Your task to perform on an android device: install app "Indeed Job Search" Image 0: 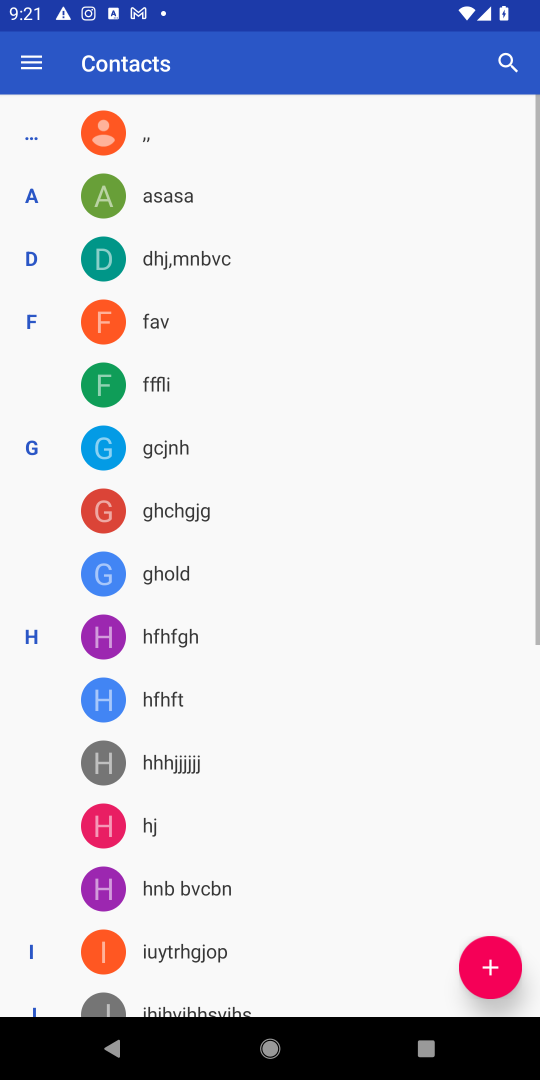
Step 0: press home button
Your task to perform on an android device: install app "Indeed Job Search" Image 1: 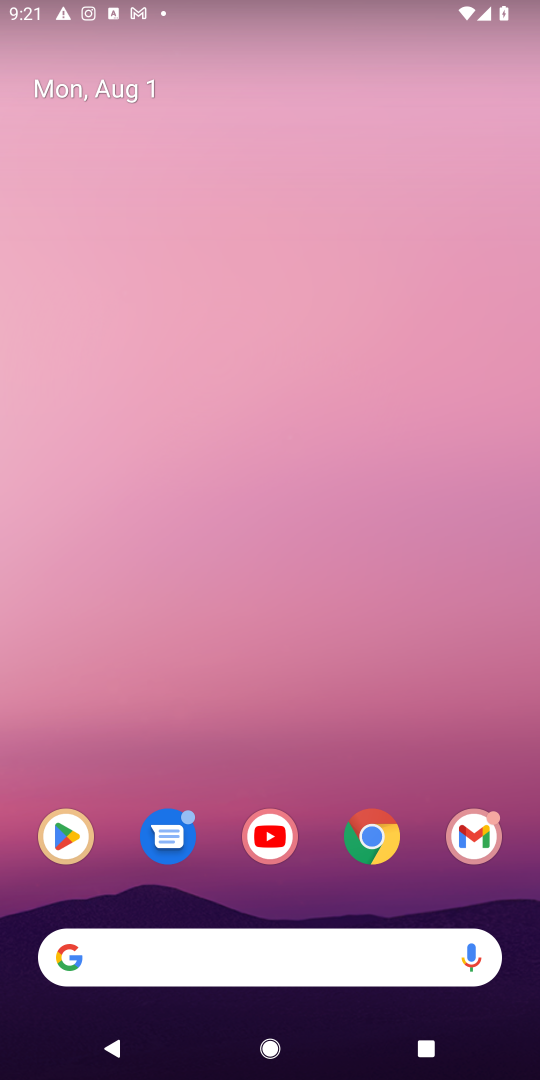
Step 1: click (58, 841)
Your task to perform on an android device: install app "Indeed Job Search" Image 2: 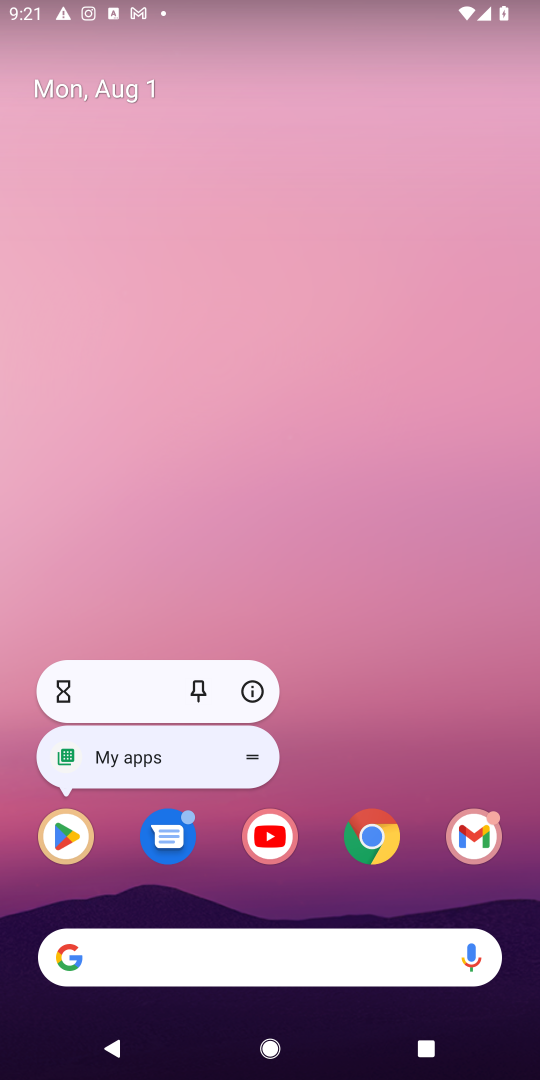
Step 2: click (58, 841)
Your task to perform on an android device: install app "Indeed Job Search" Image 3: 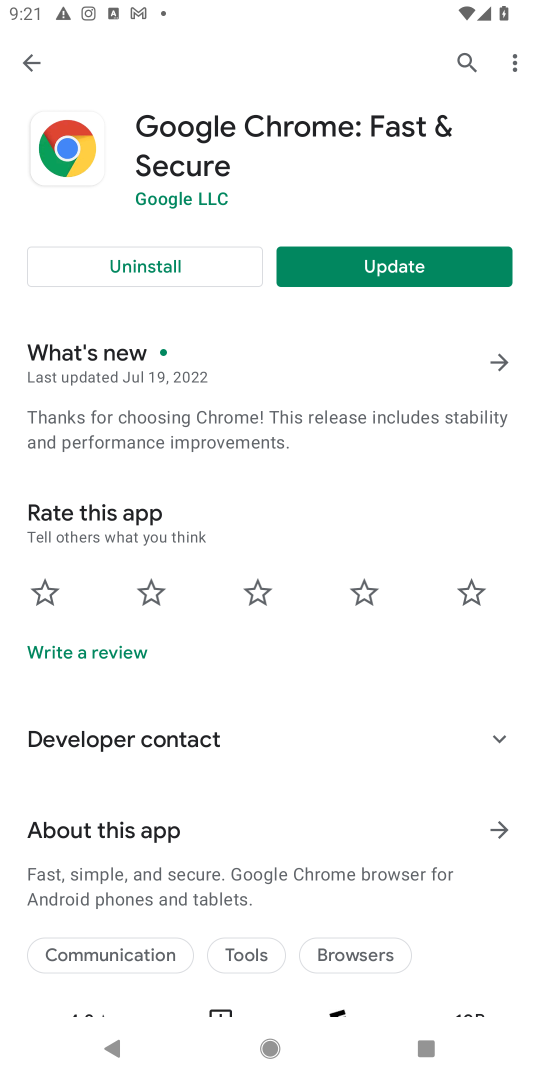
Step 3: click (464, 53)
Your task to perform on an android device: install app "Indeed Job Search" Image 4: 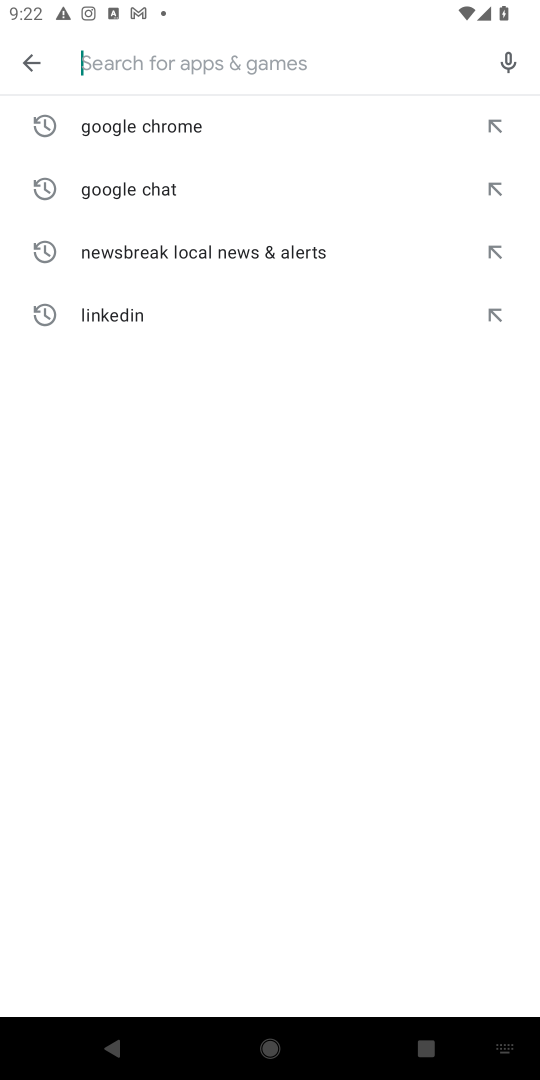
Step 4: type "Indeed Job Search"
Your task to perform on an android device: install app "Indeed Job Search" Image 5: 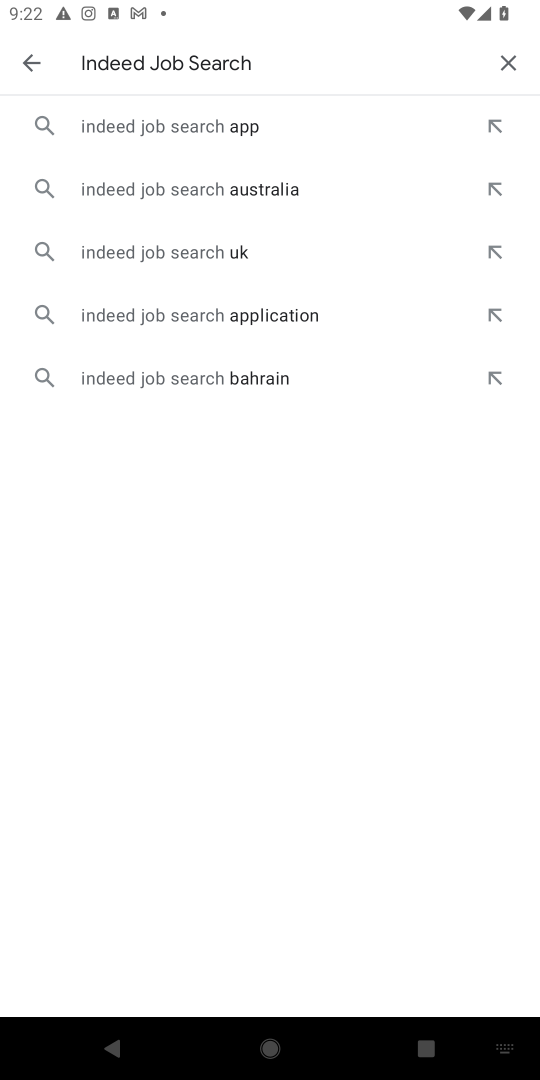
Step 5: click (215, 123)
Your task to perform on an android device: install app "Indeed Job Search" Image 6: 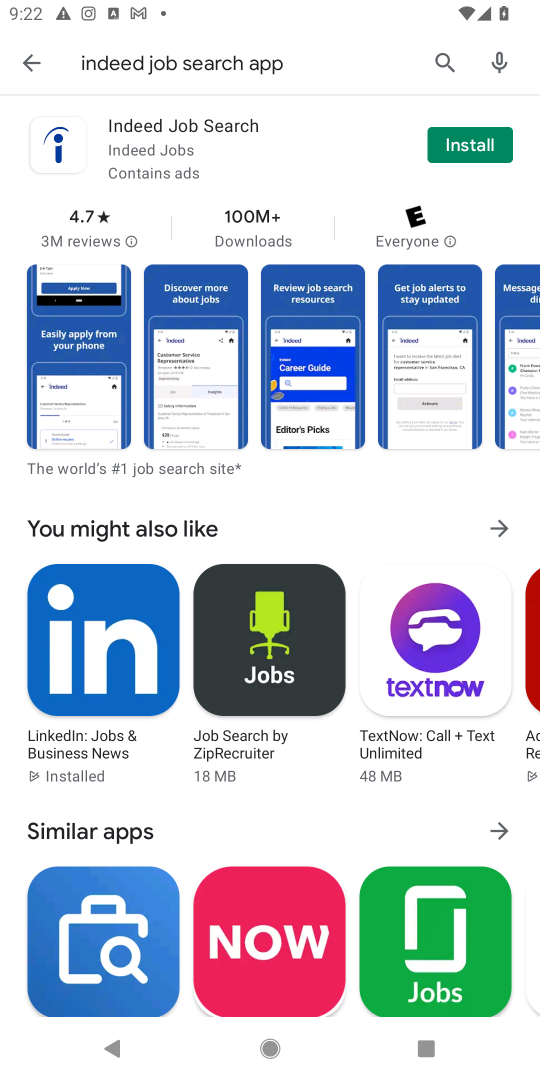
Step 6: click (479, 140)
Your task to perform on an android device: install app "Indeed Job Search" Image 7: 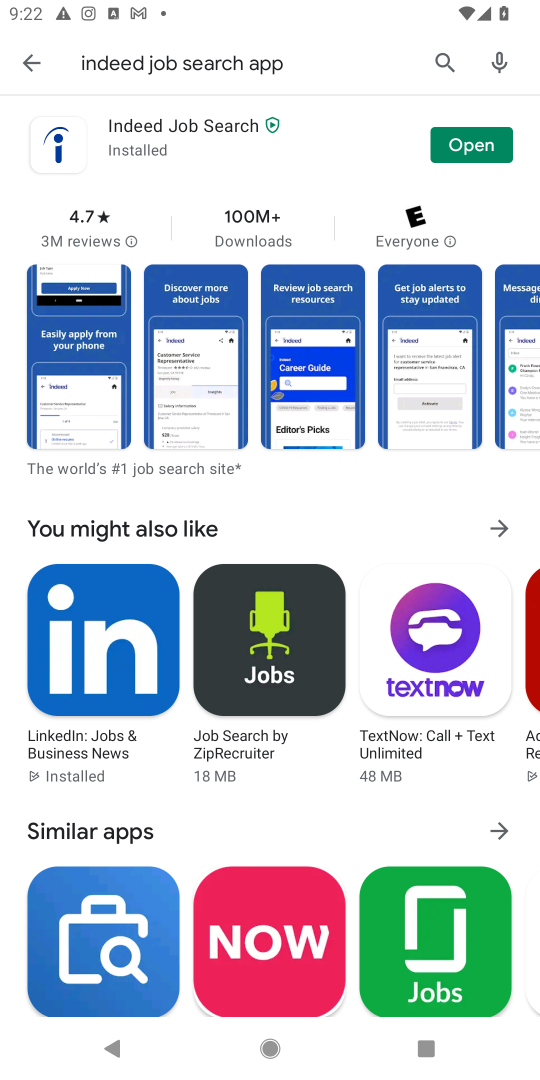
Step 7: task complete